Your task to perform on an android device: turn off javascript in the chrome app Image 0: 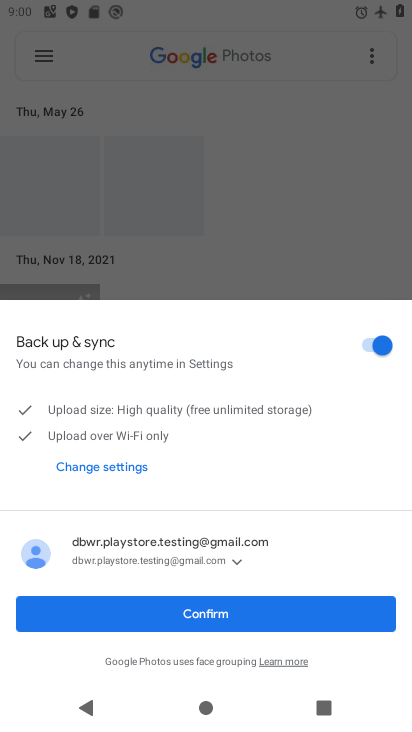
Step 0: press home button
Your task to perform on an android device: turn off javascript in the chrome app Image 1: 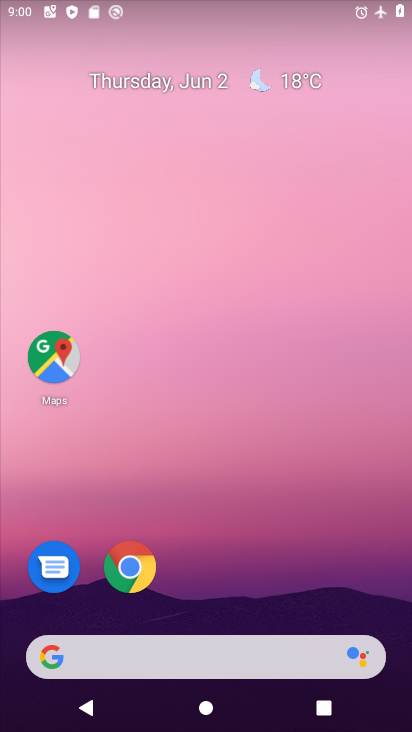
Step 1: click (142, 564)
Your task to perform on an android device: turn off javascript in the chrome app Image 2: 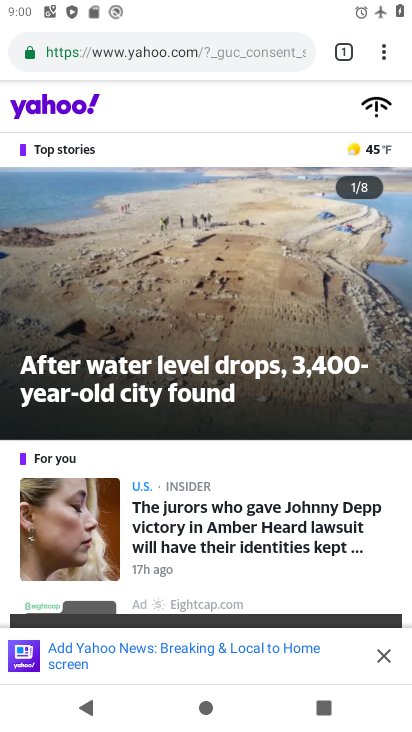
Step 2: click (146, 563)
Your task to perform on an android device: turn off javascript in the chrome app Image 3: 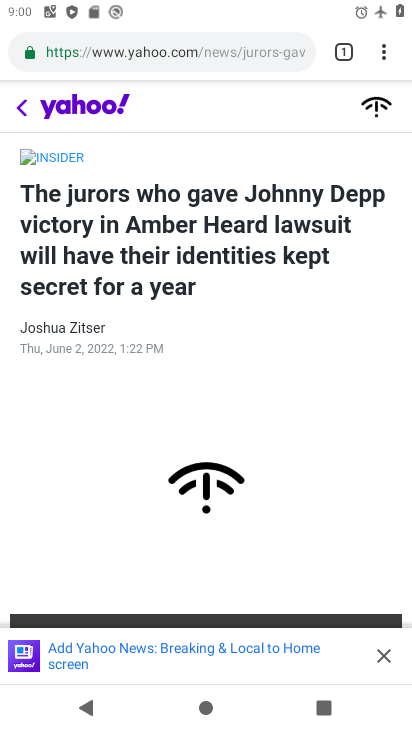
Step 3: click (385, 52)
Your task to perform on an android device: turn off javascript in the chrome app Image 4: 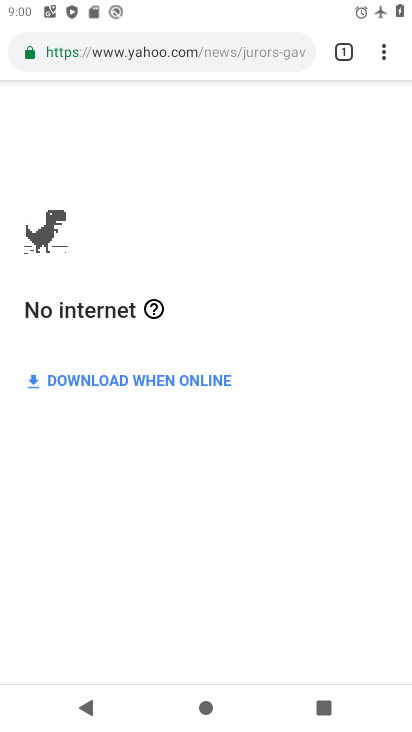
Step 4: click (376, 51)
Your task to perform on an android device: turn off javascript in the chrome app Image 5: 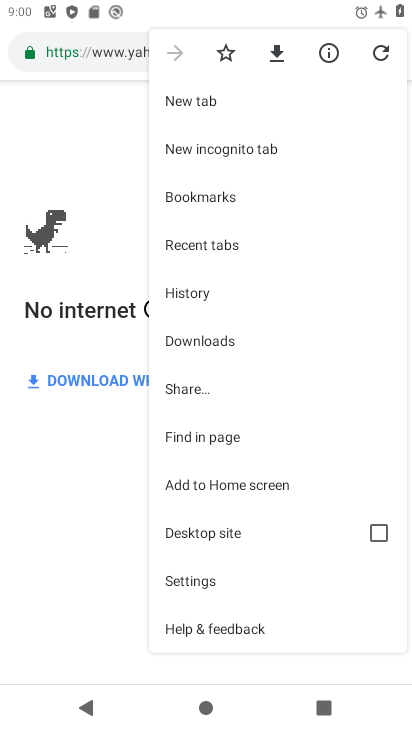
Step 5: click (202, 578)
Your task to perform on an android device: turn off javascript in the chrome app Image 6: 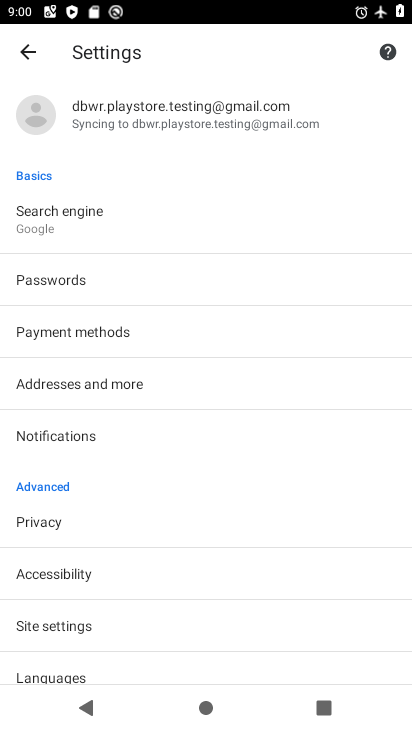
Step 6: click (74, 622)
Your task to perform on an android device: turn off javascript in the chrome app Image 7: 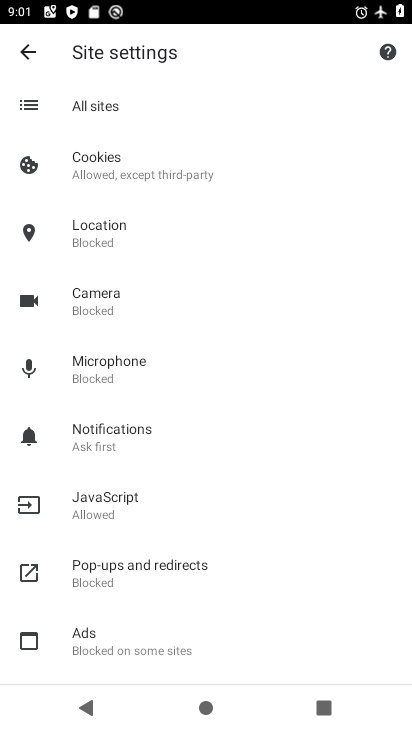
Step 7: click (128, 497)
Your task to perform on an android device: turn off javascript in the chrome app Image 8: 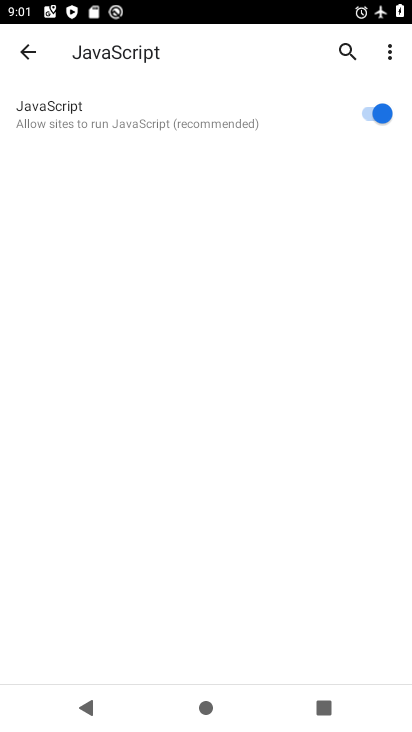
Step 8: click (351, 120)
Your task to perform on an android device: turn off javascript in the chrome app Image 9: 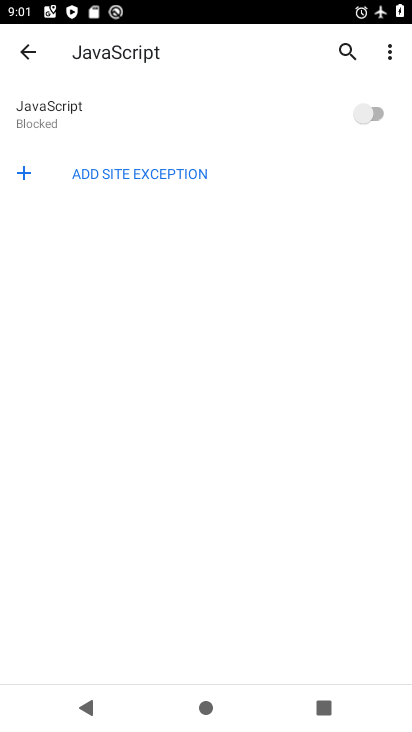
Step 9: task complete